Your task to perform on an android device: change the clock display to digital Image 0: 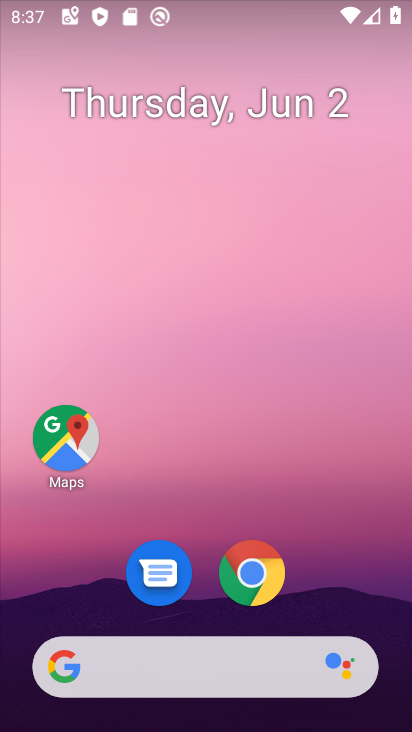
Step 0: drag from (356, 568) to (190, 21)
Your task to perform on an android device: change the clock display to digital Image 1: 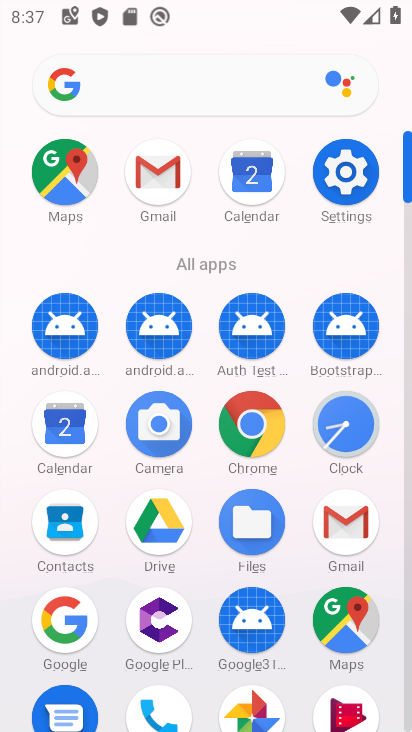
Step 1: click (310, 396)
Your task to perform on an android device: change the clock display to digital Image 2: 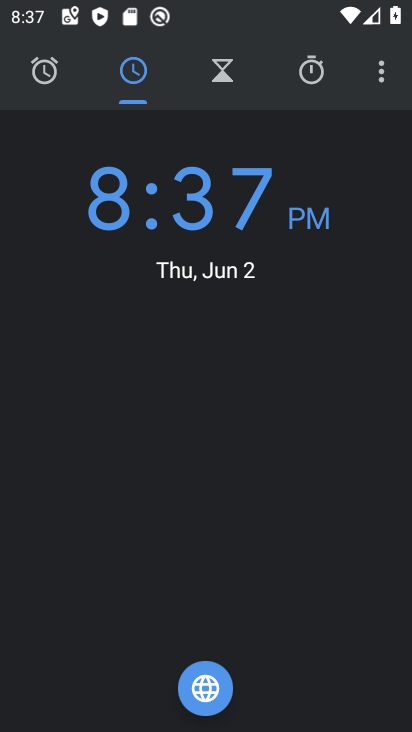
Step 2: click (378, 63)
Your task to perform on an android device: change the clock display to digital Image 3: 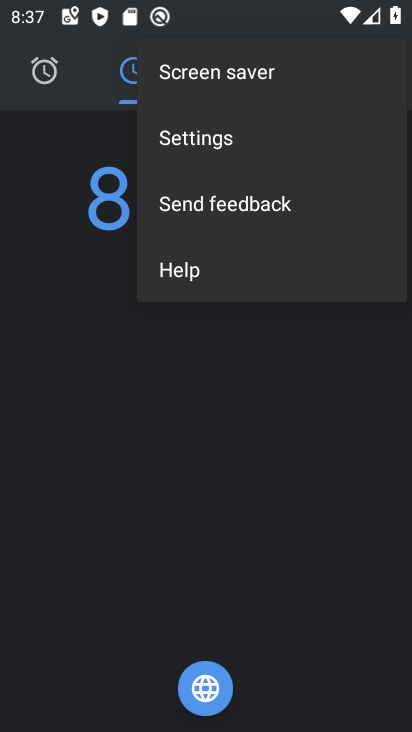
Step 3: click (276, 129)
Your task to perform on an android device: change the clock display to digital Image 4: 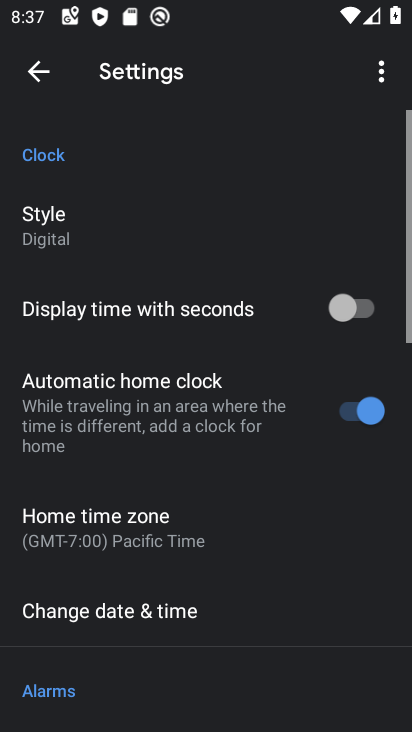
Step 4: click (48, 242)
Your task to perform on an android device: change the clock display to digital Image 5: 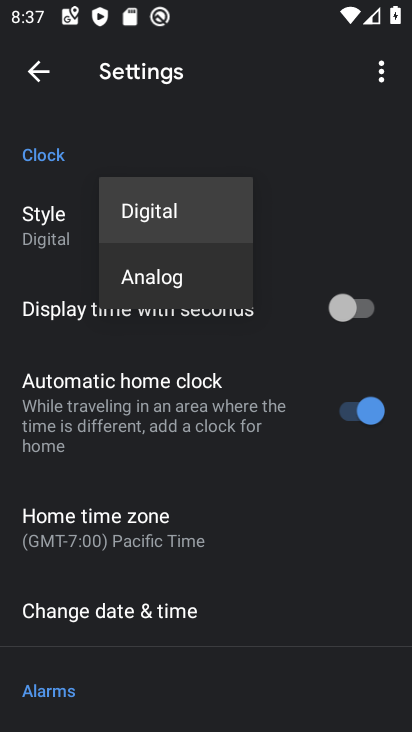
Step 5: click (129, 220)
Your task to perform on an android device: change the clock display to digital Image 6: 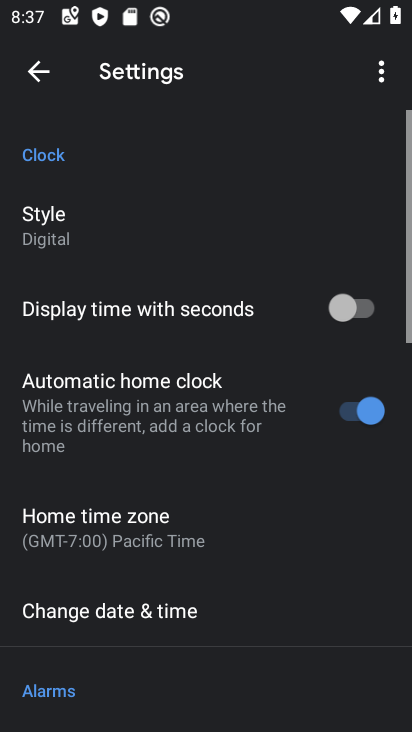
Step 6: task complete